Your task to perform on an android device: How much does the new iPad cost on eBay? Image 0: 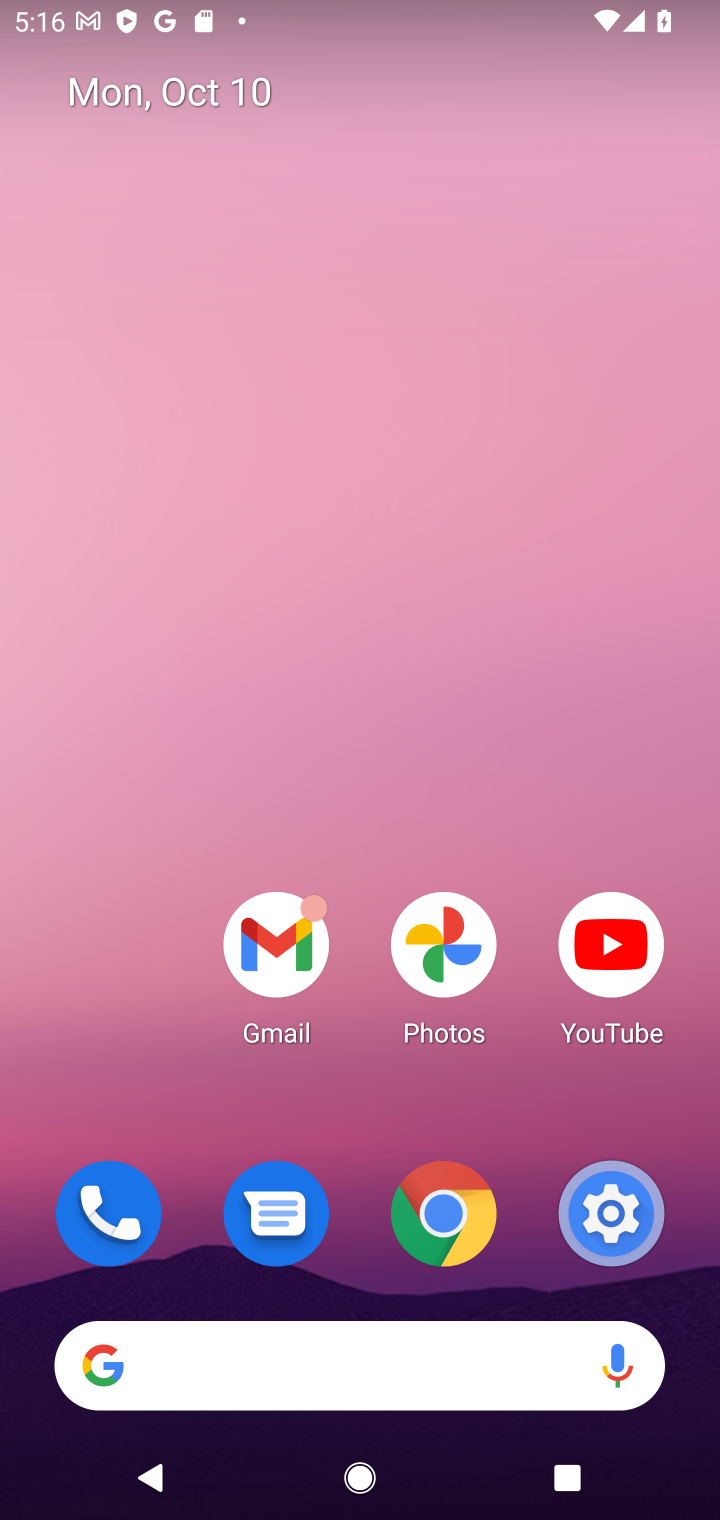
Step 0: click (360, 1336)
Your task to perform on an android device: How much does the new iPad cost on eBay? Image 1: 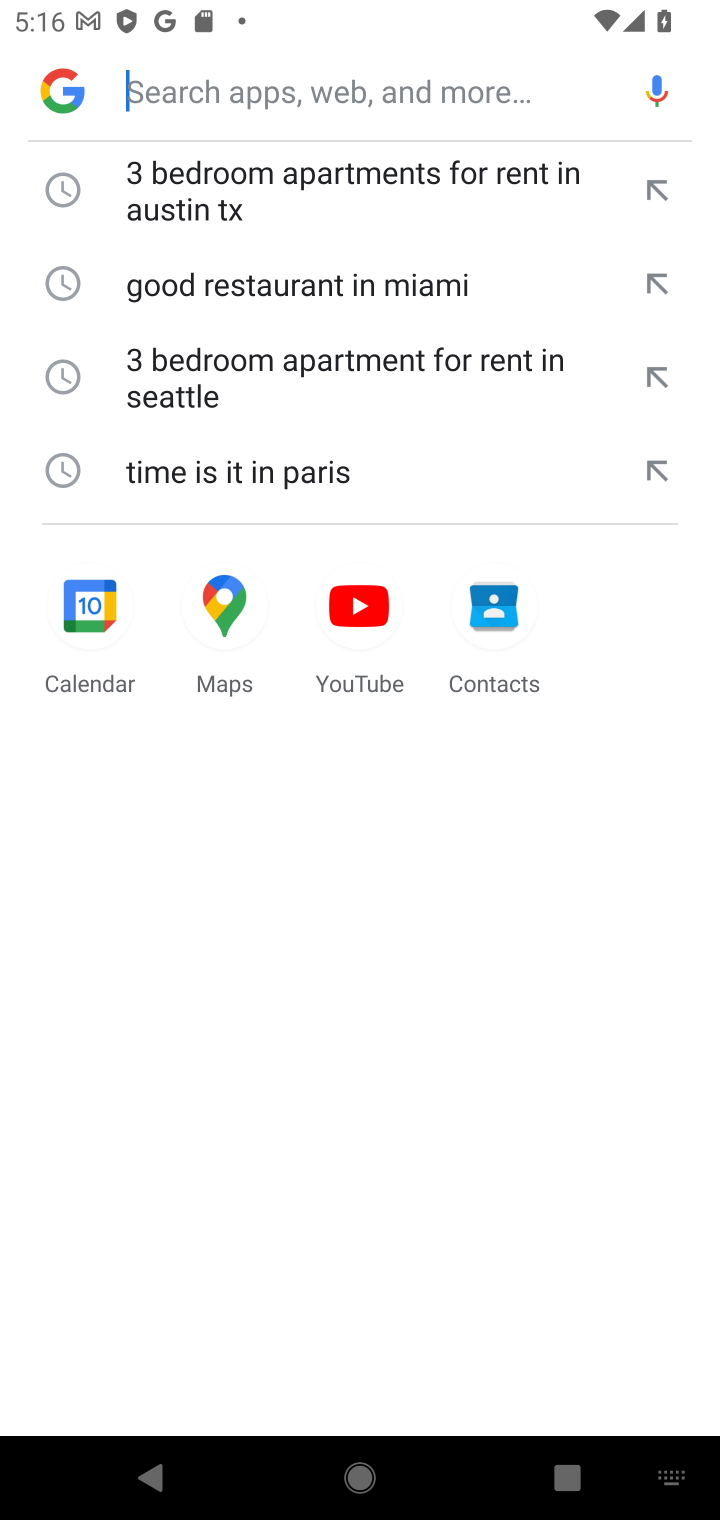
Step 1: type "new iPad cost on eBay"
Your task to perform on an android device: How much does the new iPad cost on eBay? Image 2: 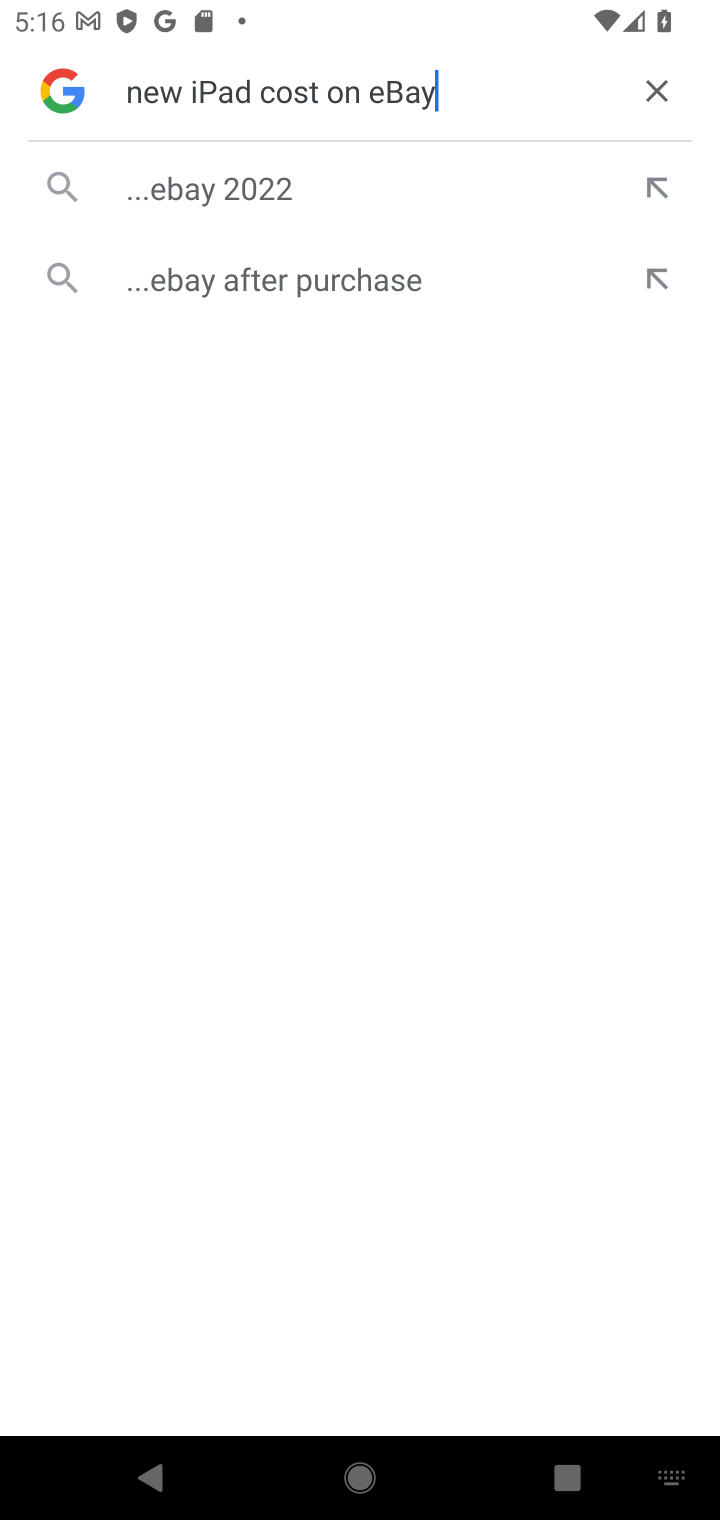
Step 2: click (310, 187)
Your task to perform on an android device: How much does the new iPad cost on eBay? Image 3: 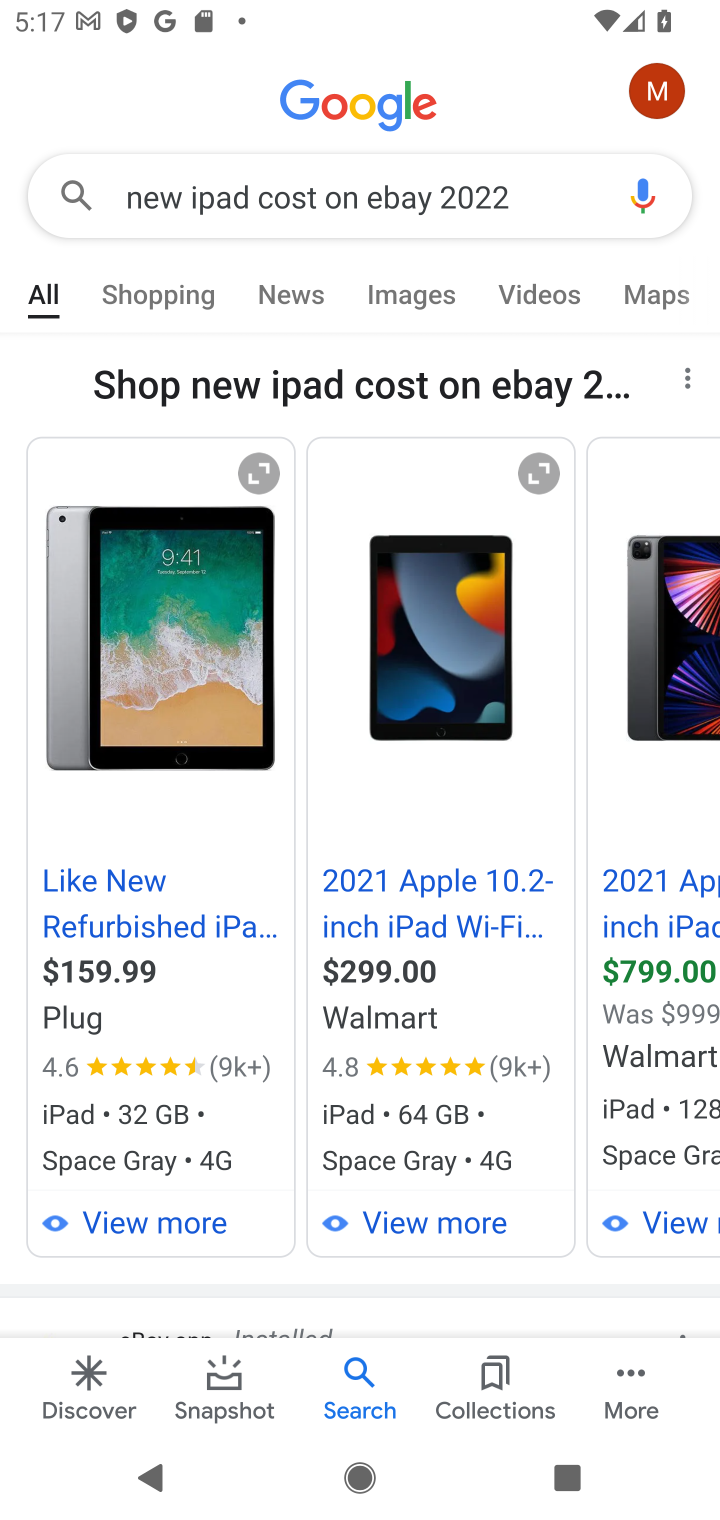
Step 3: task complete